Your task to perform on an android device: Install the Google app Image 0: 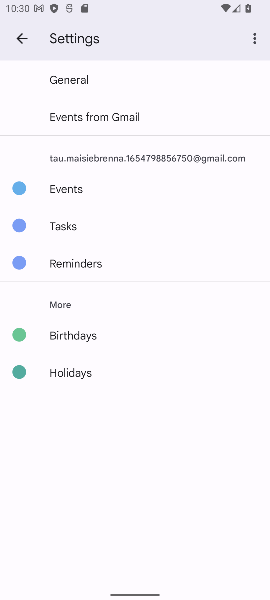
Step 0: press home button
Your task to perform on an android device: Install the Google app Image 1: 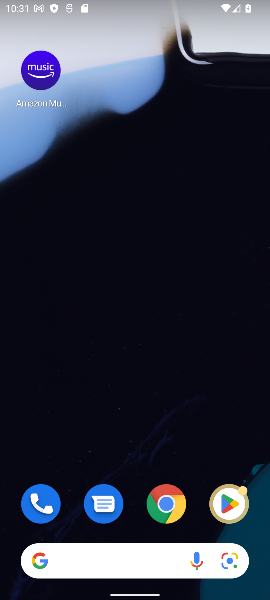
Step 1: click (232, 500)
Your task to perform on an android device: Install the Google app Image 2: 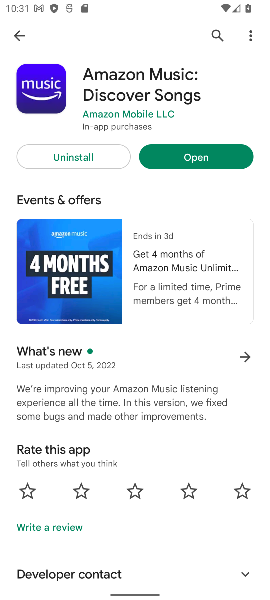
Step 2: click (214, 34)
Your task to perform on an android device: Install the Google app Image 3: 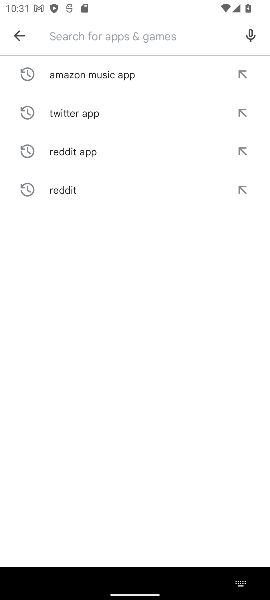
Step 3: type "Google app"
Your task to perform on an android device: Install the Google app Image 4: 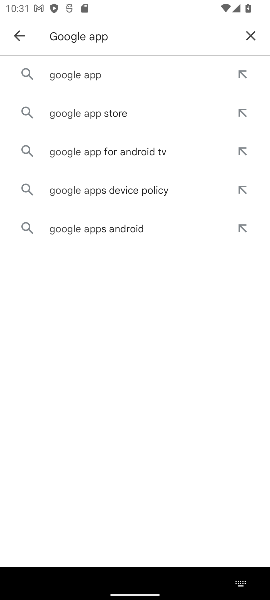
Step 4: click (56, 67)
Your task to perform on an android device: Install the Google app Image 5: 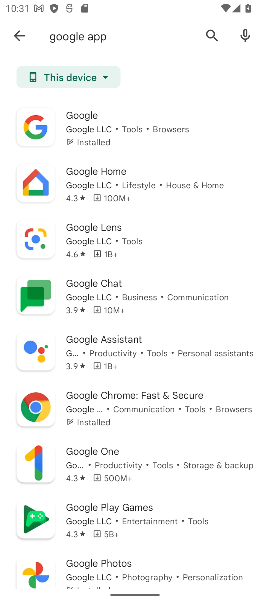
Step 5: click (71, 117)
Your task to perform on an android device: Install the Google app Image 6: 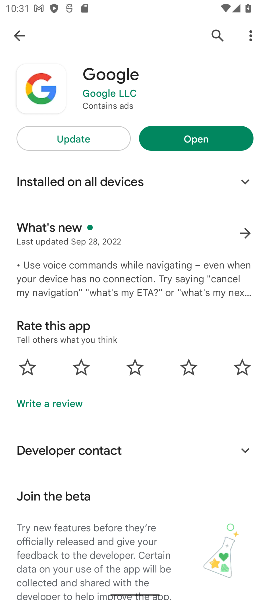
Step 6: click (204, 143)
Your task to perform on an android device: Install the Google app Image 7: 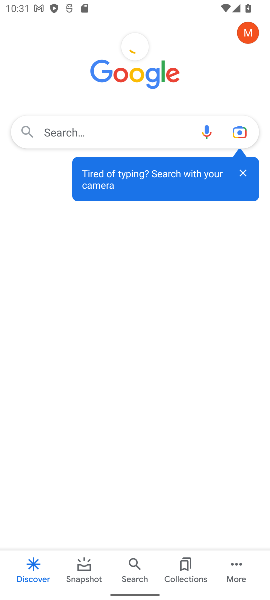
Step 7: click (242, 169)
Your task to perform on an android device: Install the Google app Image 8: 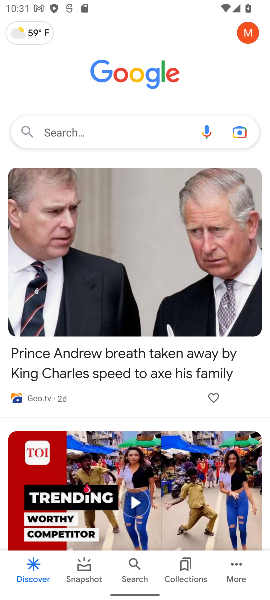
Step 8: task complete